Your task to perform on an android device: change alarm snooze length Image 0: 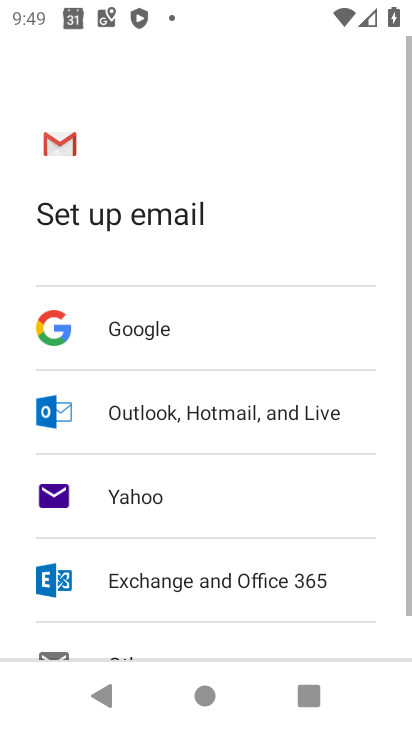
Step 0: press home button
Your task to perform on an android device: change alarm snooze length Image 1: 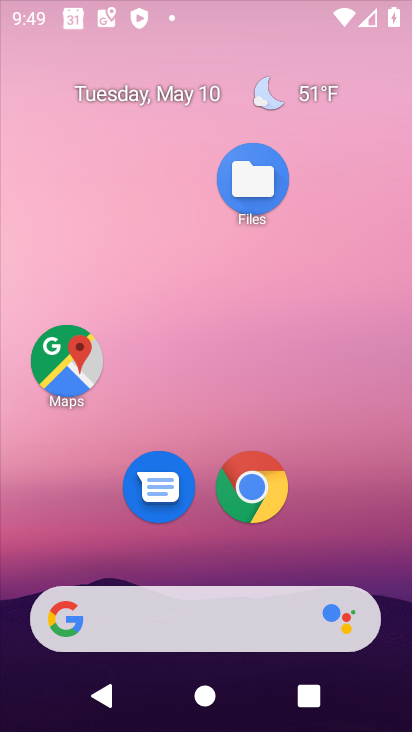
Step 1: drag from (200, 547) to (212, 65)
Your task to perform on an android device: change alarm snooze length Image 2: 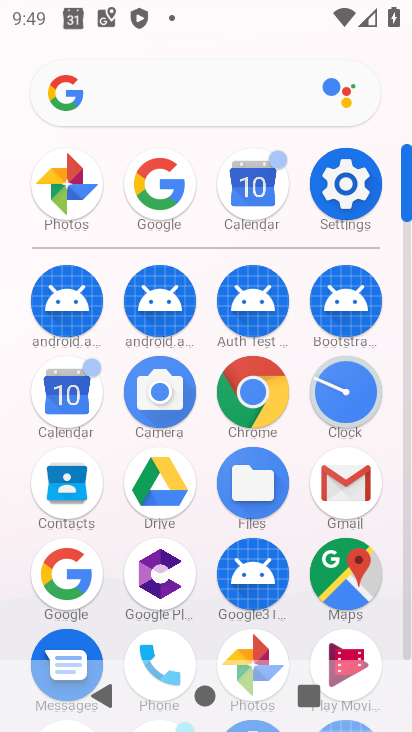
Step 2: click (355, 395)
Your task to perform on an android device: change alarm snooze length Image 3: 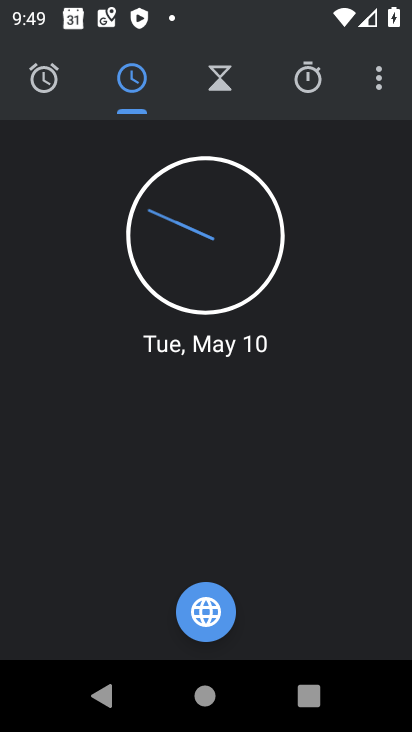
Step 3: click (369, 71)
Your task to perform on an android device: change alarm snooze length Image 4: 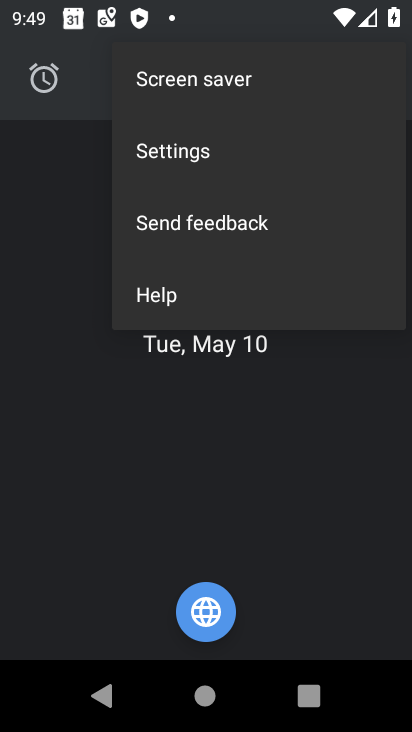
Step 4: click (234, 141)
Your task to perform on an android device: change alarm snooze length Image 5: 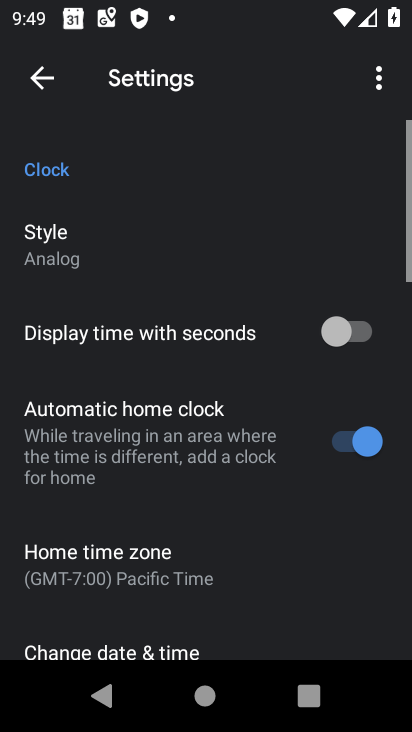
Step 5: drag from (184, 524) to (246, 49)
Your task to perform on an android device: change alarm snooze length Image 6: 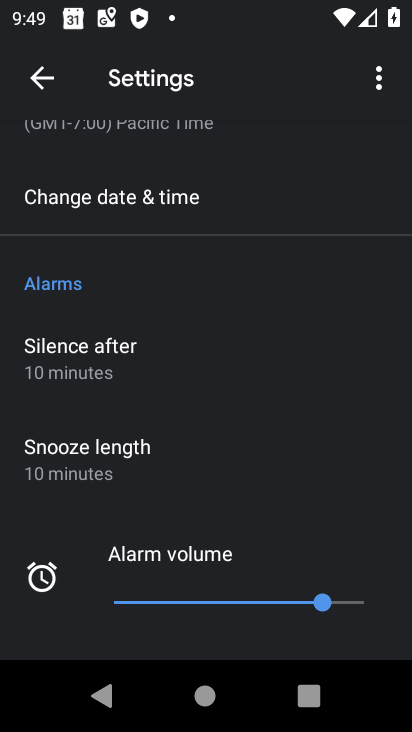
Step 6: click (121, 468)
Your task to perform on an android device: change alarm snooze length Image 7: 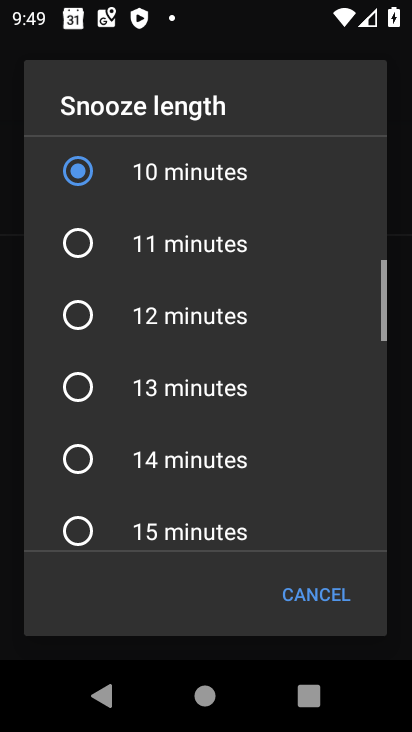
Step 7: click (80, 461)
Your task to perform on an android device: change alarm snooze length Image 8: 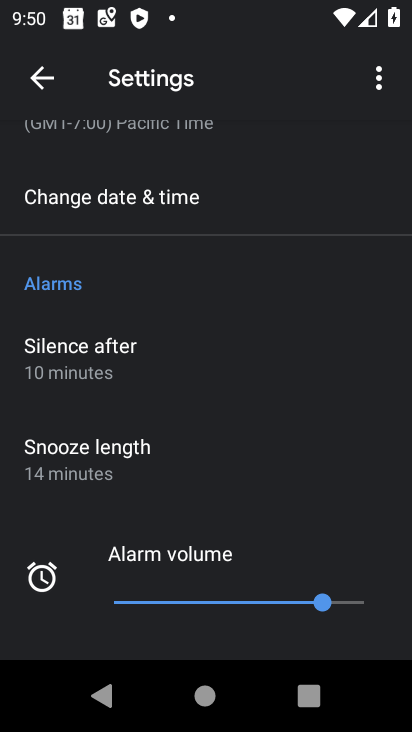
Step 8: task complete